Your task to perform on an android device: turn off javascript in the chrome app Image 0: 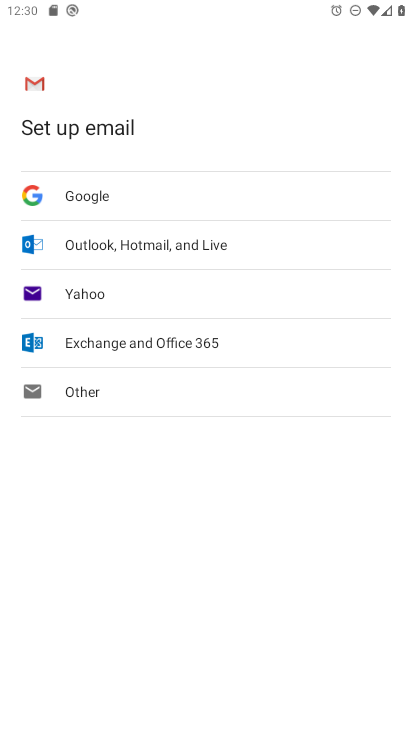
Step 0: press home button
Your task to perform on an android device: turn off javascript in the chrome app Image 1: 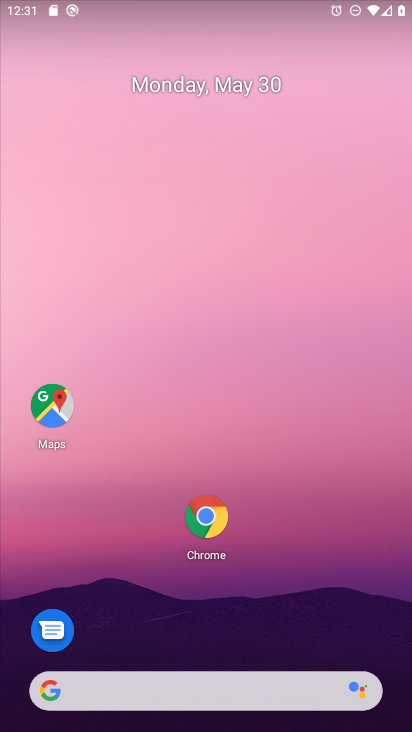
Step 1: click (209, 521)
Your task to perform on an android device: turn off javascript in the chrome app Image 2: 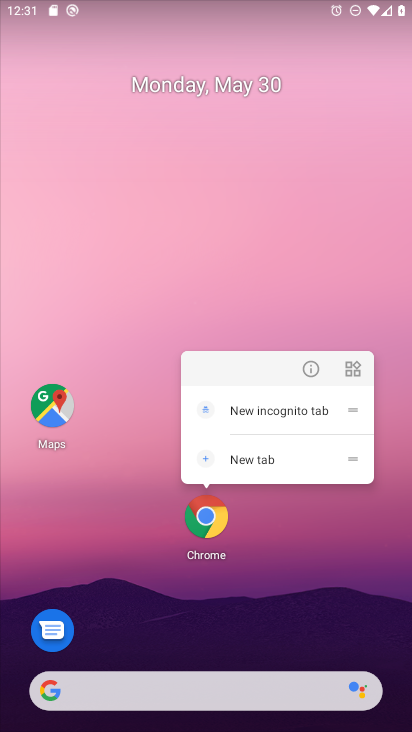
Step 2: click (206, 520)
Your task to perform on an android device: turn off javascript in the chrome app Image 3: 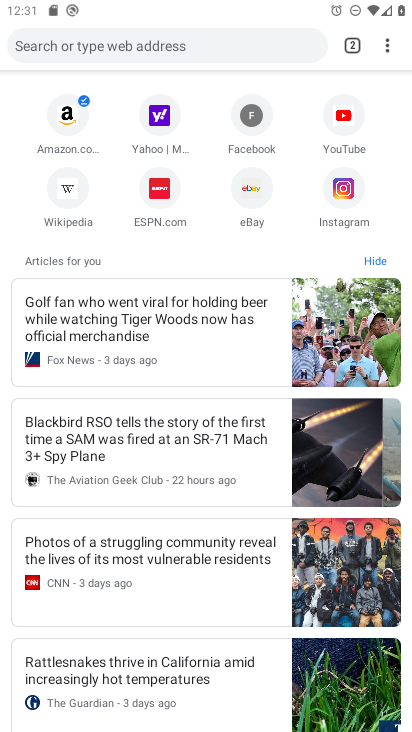
Step 3: drag from (385, 44) to (273, 378)
Your task to perform on an android device: turn off javascript in the chrome app Image 4: 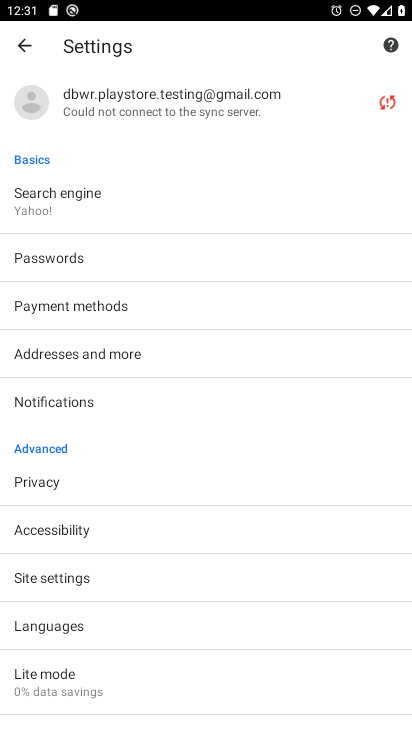
Step 4: click (52, 571)
Your task to perform on an android device: turn off javascript in the chrome app Image 5: 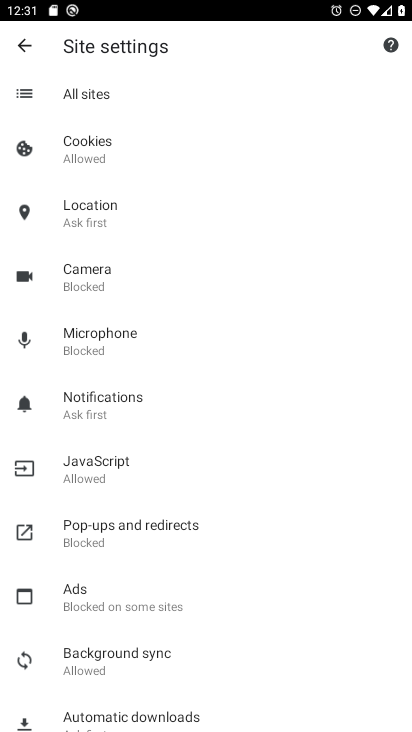
Step 5: click (93, 462)
Your task to perform on an android device: turn off javascript in the chrome app Image 6: 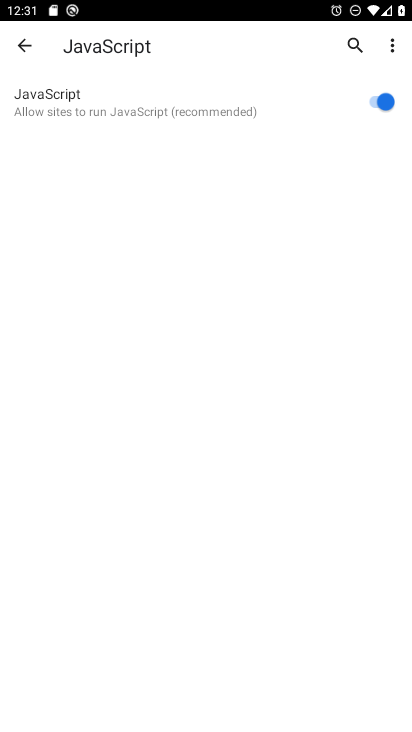
Step 6: click (373, 97)
Your task to perform on an android device: turn off javascript in the chrome app Image 7: 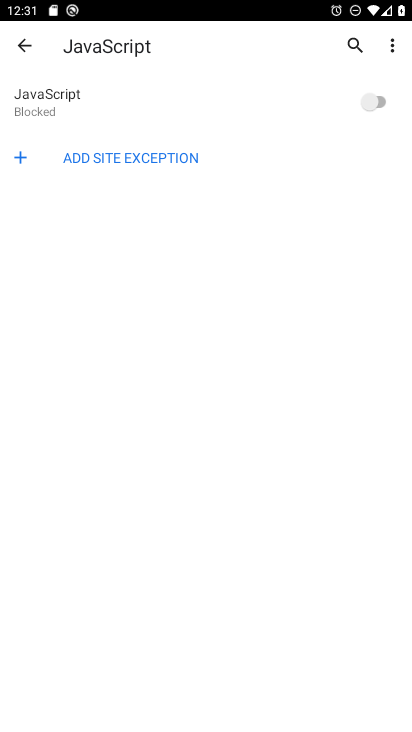
Step 7: task complete